Your task to perform on an android device: Search for Mexican restaurants on Maps Image 0: 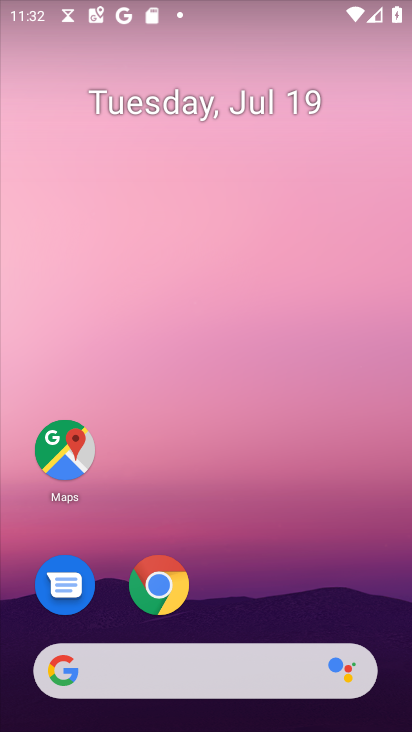
Step 0: press home button
Your task to perform on an android device: Search for Mexican restaurants on Maps Image 1: 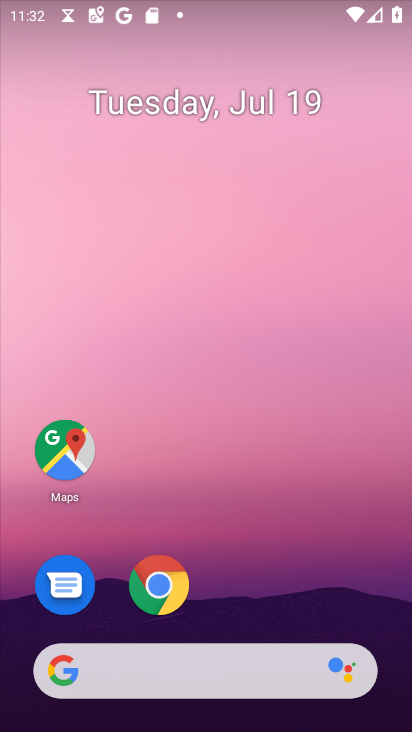
Step 1: click (67, 447)
Your task to perform on an android device: Search for Mexican restaurants on Maps Image 2: 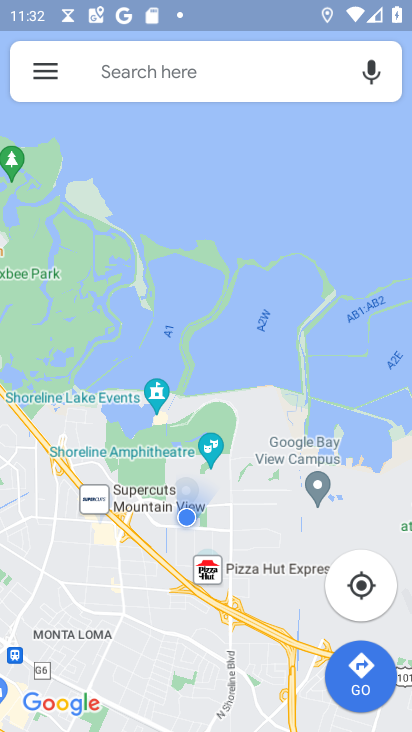
Step 2: click (196, 68)
Your task to perform on an android device: Search for Mexican restaurants on Maps Image 3: 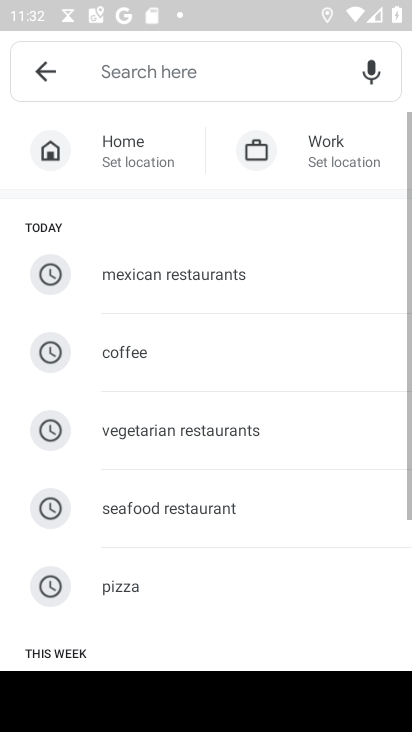
Step 3: click (193, 275)
Your task to perform on an android device: Search for Mexican restaurants on Maps Image 4: 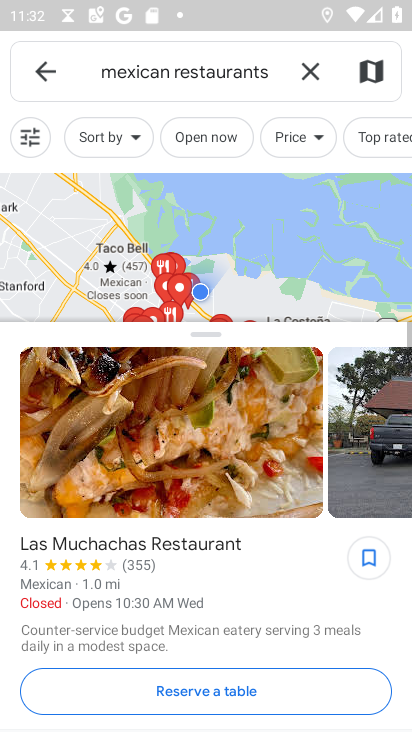
Step 4: task complete